Your task to perform on an android device: Go to Google Image 0: 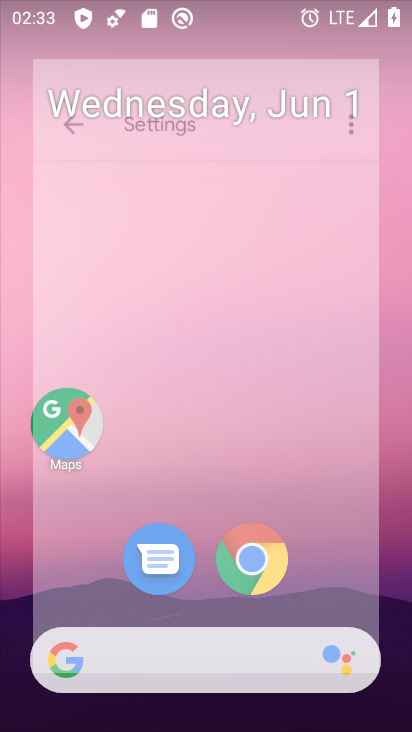
Step 0: press home button
Your task to perform on an android device: Go to Google Image 1: 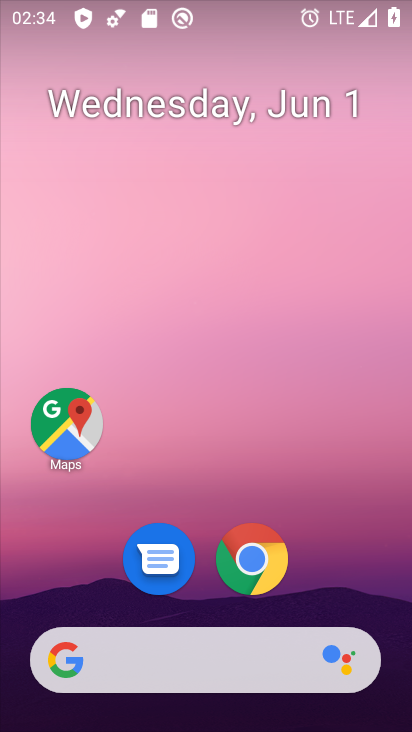
Step 1: click (61, 659)
Your task to perform on an android device: Go to Google Image 2: 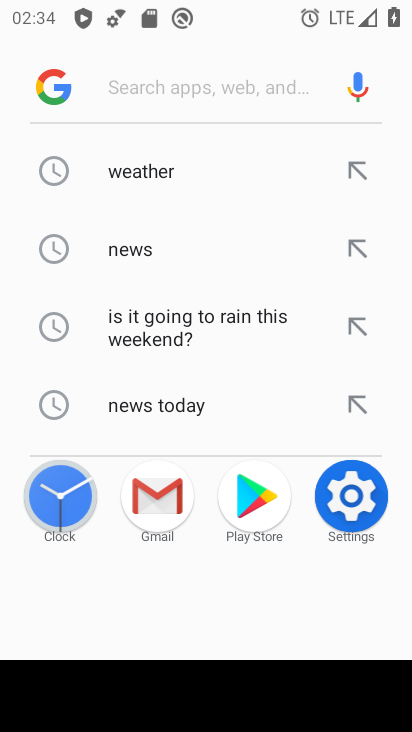
Step 2: task complete